Your task to perform on an android device: Search for a new blush Image 0: 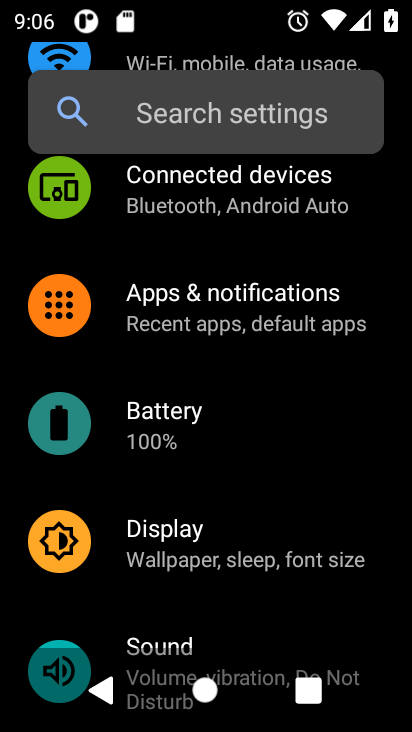
Step 0: press home button
Your task to perform on an android device: Search for a new blush Image 1: 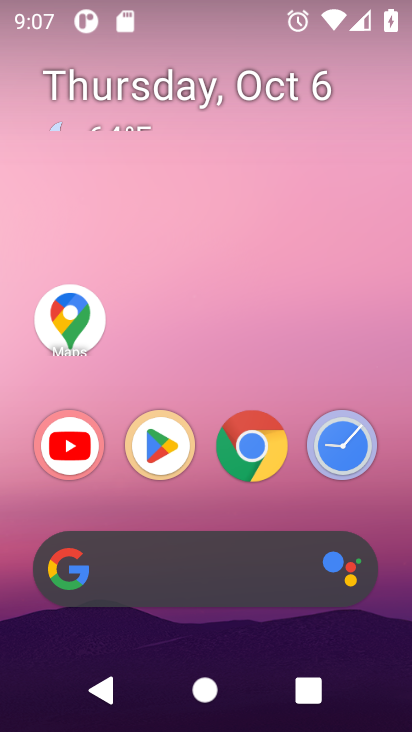
Step 1: click (210, 594)
Your task to perform on an android device: Search for a new blush Image 2: 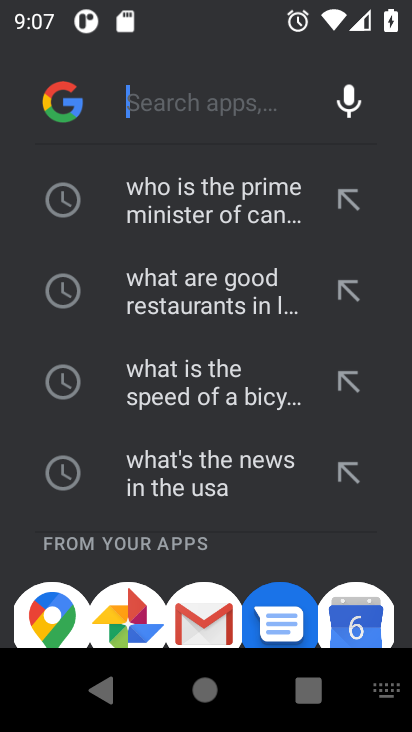
Step 2: type "a new blush"
Your task to perform on an android device: Search for a new blush Image 3: 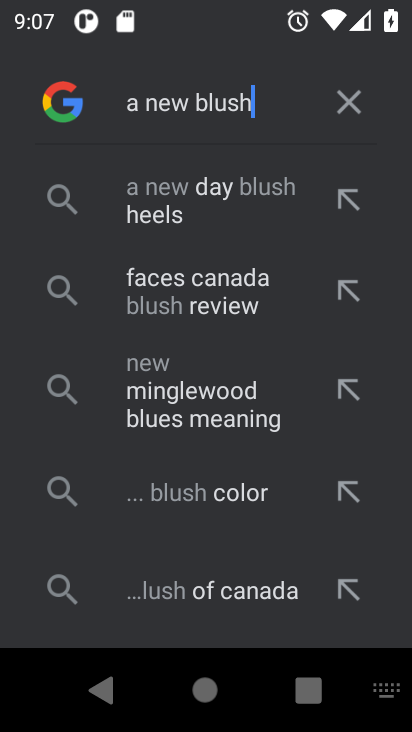
Step 3: click (193, 204)
Your task to perform on an android device: Search for a new blush Image 4: 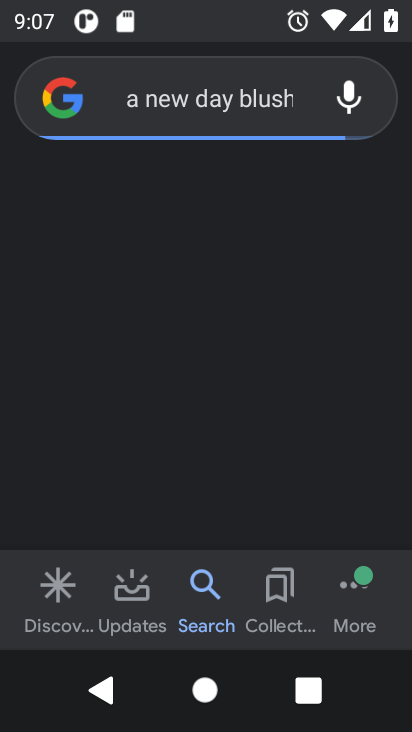
Step 4: task complete